Your task to perform on an android device: find photos in the google photos app Image 0: 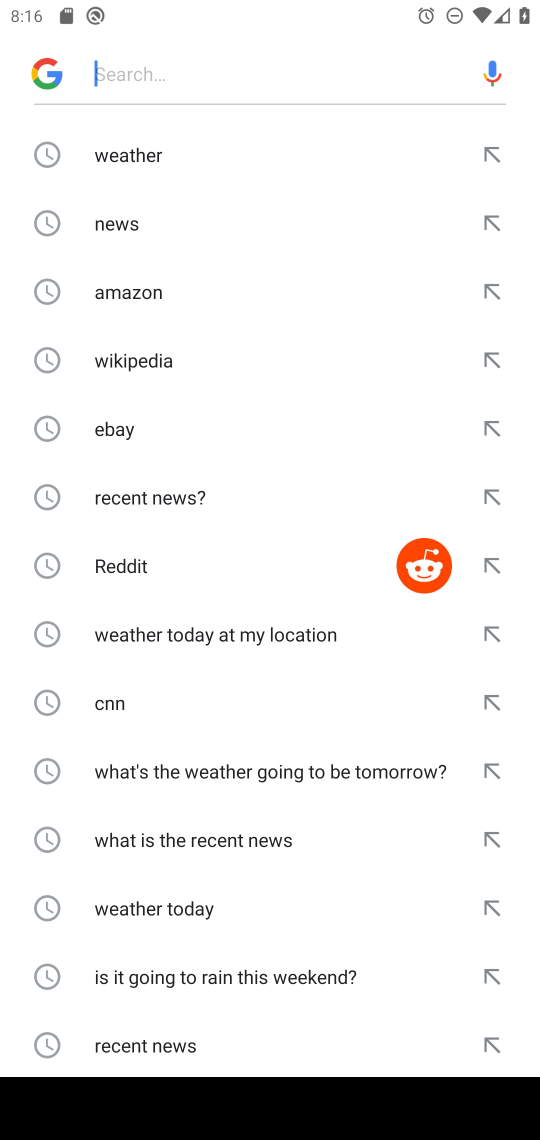
Step 0: press home button
Your task to perform on an android device: find photos in the google photos app Image 1: 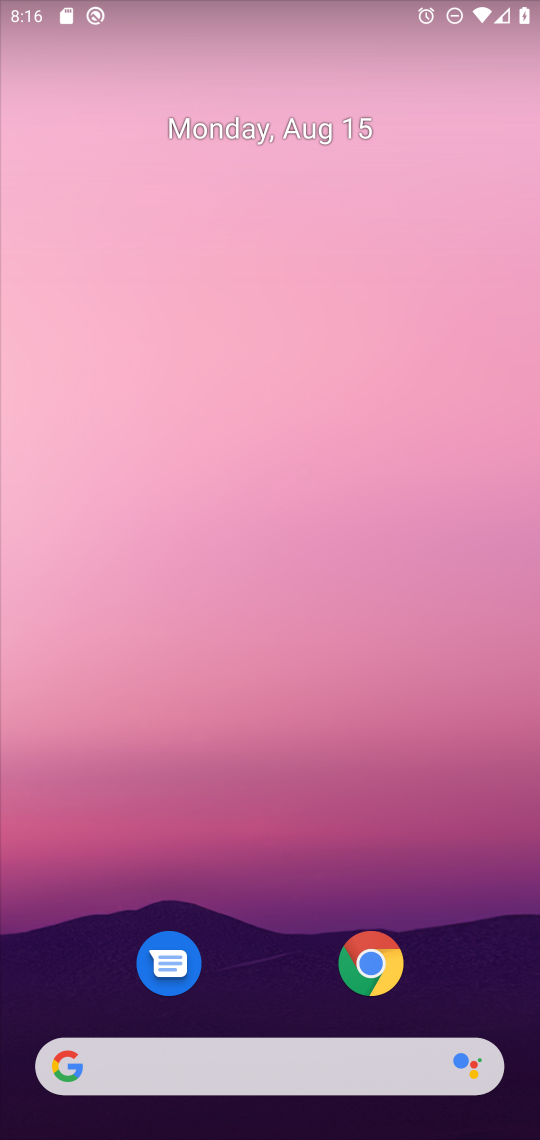
Step 1: drag from (273, 591) to (300, 271)
Your task to perform on an android device: find photos in the google photos app Image 2: 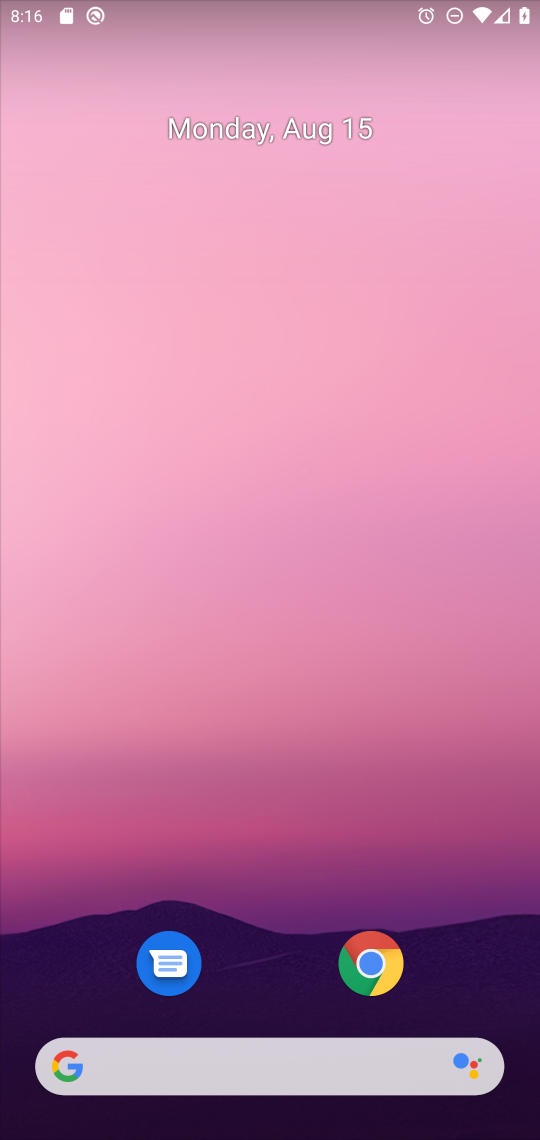
Step 2: drag from (265, 1014) to (197, 451)
Your task to perform on an android device: find photos in the google photos app Image 3: 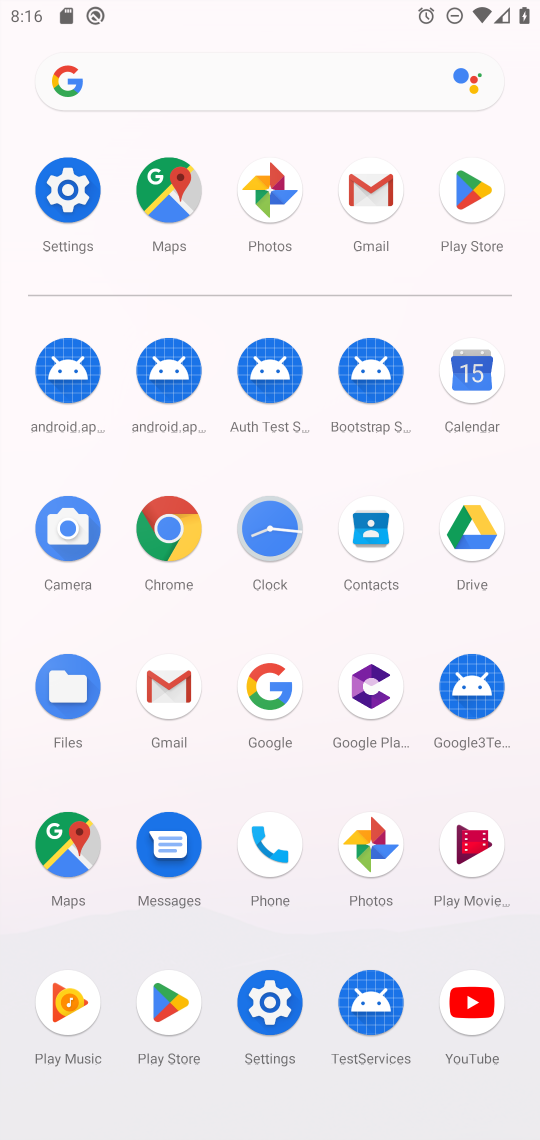
Step 3: click (259, 201)
Your task to perform on an android device: find photos in the google photos app Image 4: 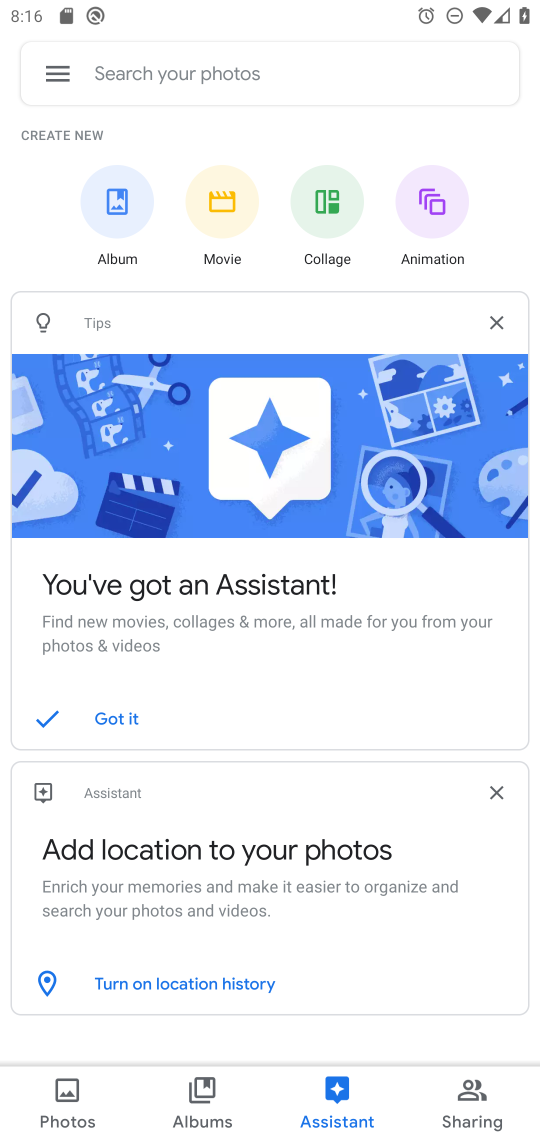
Step 4: click (92, 1122)
Your task to perform on an android device: find photos in the google photos app Image 5: 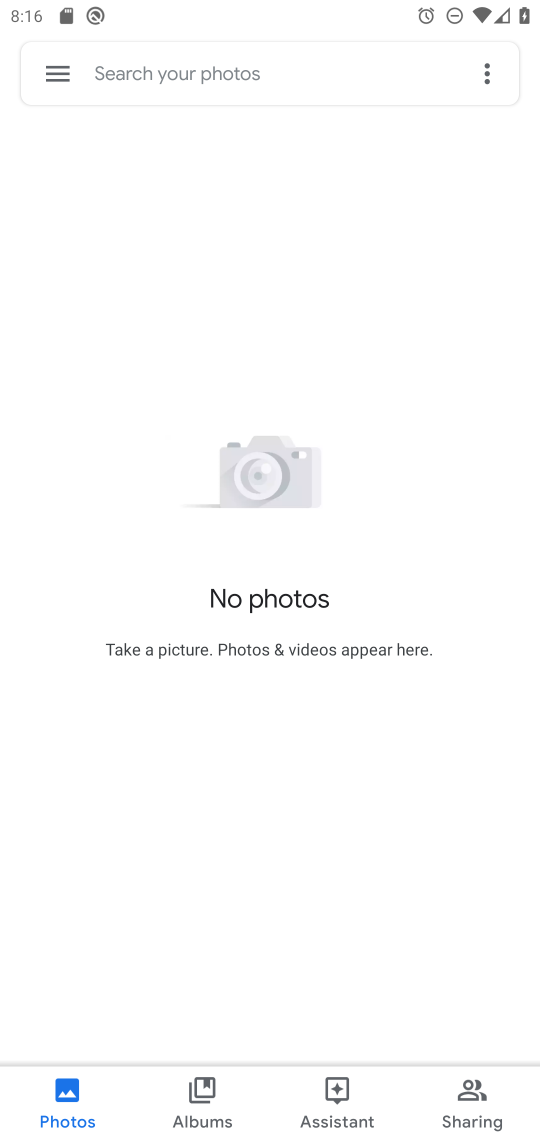
Step 5: task complete